Your task to perform on an android device: turn pop-ups off in chrome Image 0: 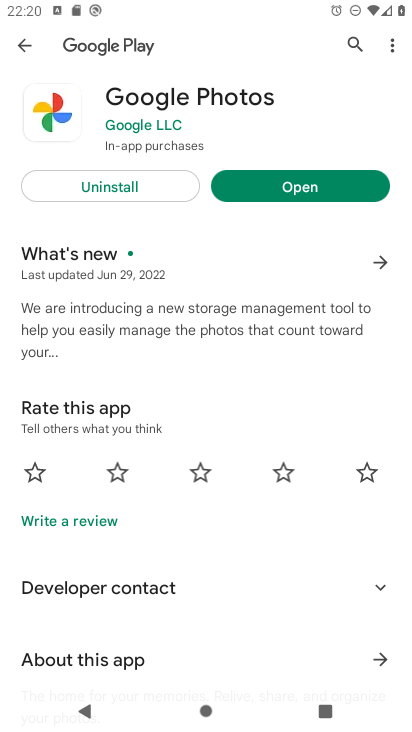
Step 0: press home button
Your task to perform on an android device: turn pop-ups off in chrome Image 1: 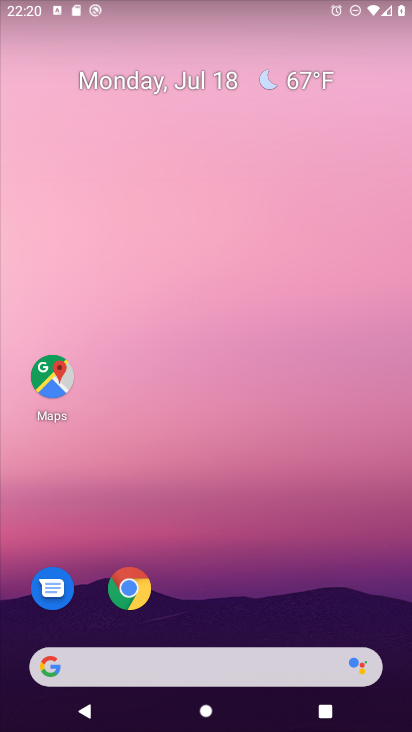
Step 1: click (129, 586)
Your task to perform on an android device: turn pop-ups off in chrome Image 2: 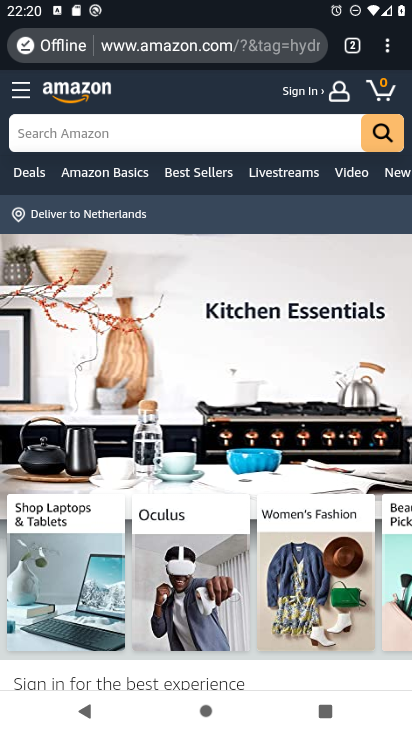
Step 2: click (388, 54)
Your task to perform on an android device: turn pop-ups off in chrome Image 3: 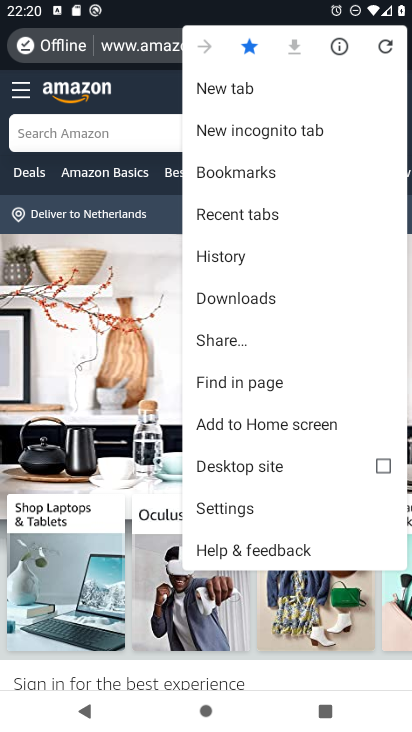
Step 3: click (236, 499)
Your task to perform on an android device: turn pop-ups off in chrome Image 4: 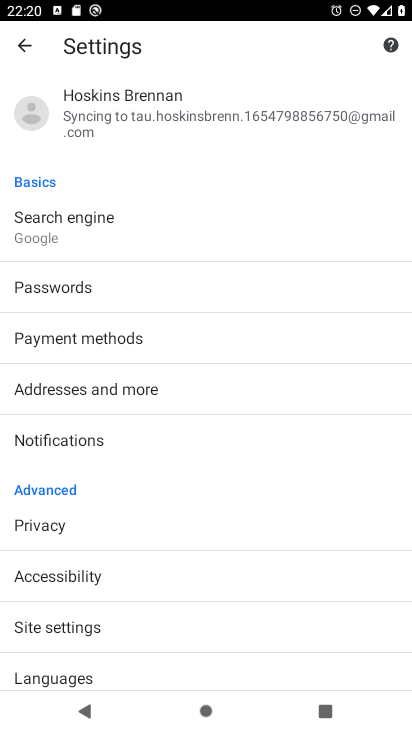
Step 4: drag from (216, 583) to (209, 299)
Your task to perform on an android device: turn pop-ups off in chrome Image 5: 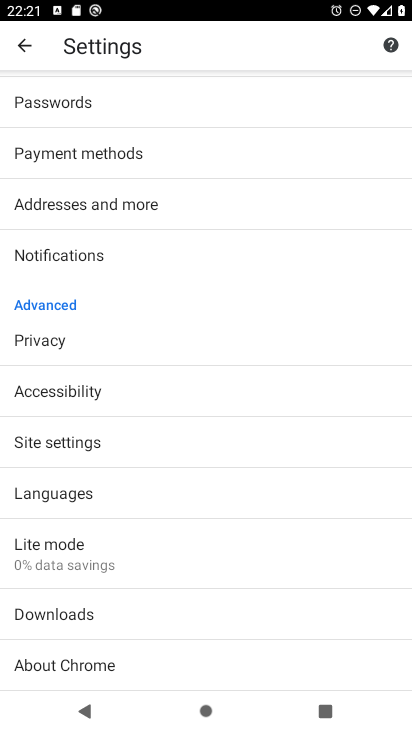
Step 5: click (53, 440)
Your task to perform on an android device: turn pop-ups off in chrome Image 6: 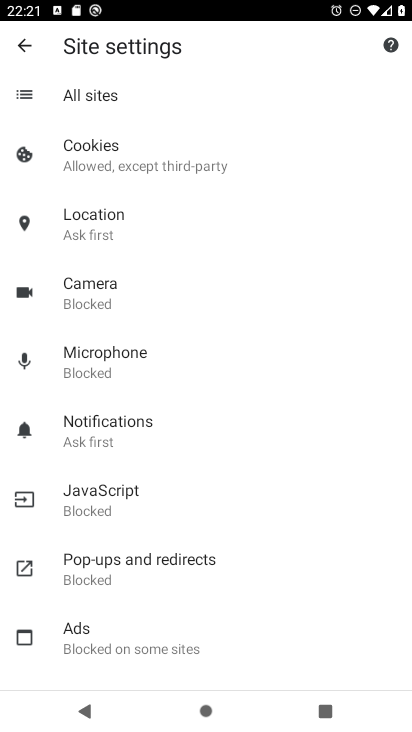
Step 6: click (105, 558)
Your task to perform on an android device: turn pop-ups off in chrome Image 7: 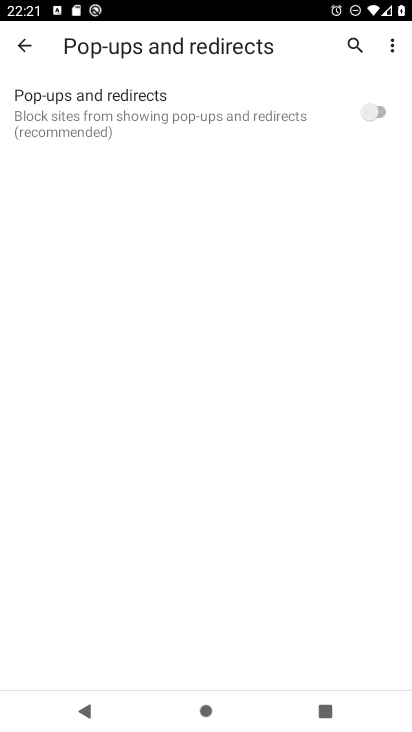
Step 7: task complete